Your task to perform on an android device: What's the weather today? Image 0: 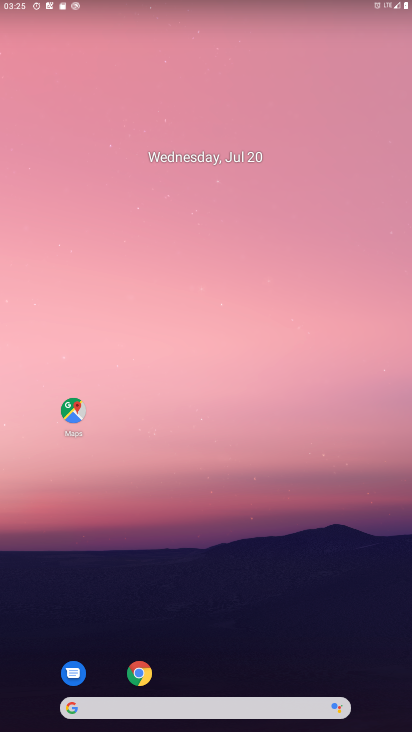
Step 0: click (200, 709)
Your task to perform on an android device: What's the weather today? Image 1: 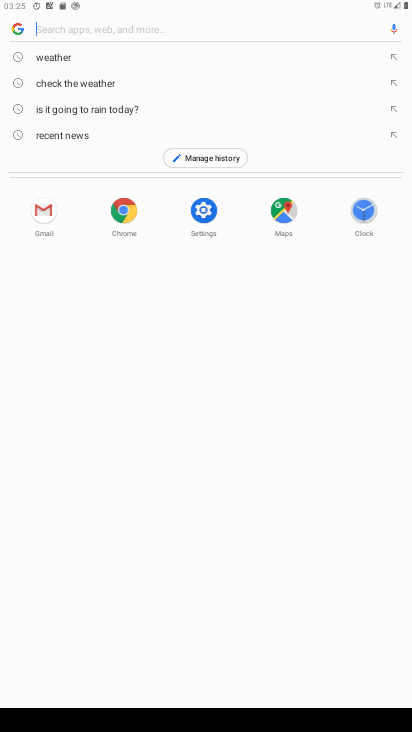
Step 1: click (51, 55)
Your task to perform on an android device: What's the weather today? Image 2: 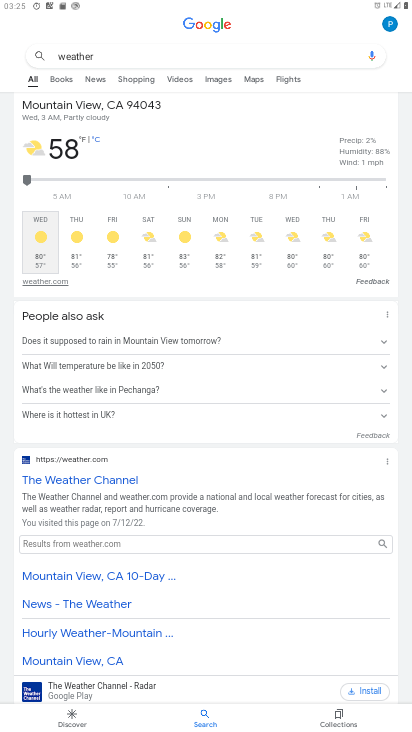
Step 2: task complete